Your task to perform on an android device: change timer sound Image 0: 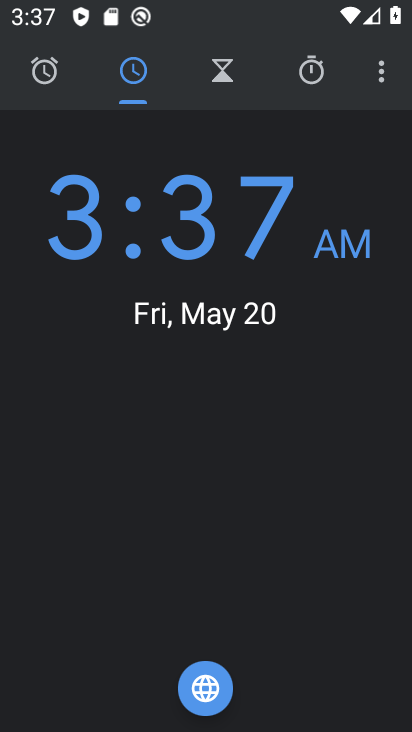
Step 0: click (386, 79)
Your task to perform on an android device: change timer sound Image 1: 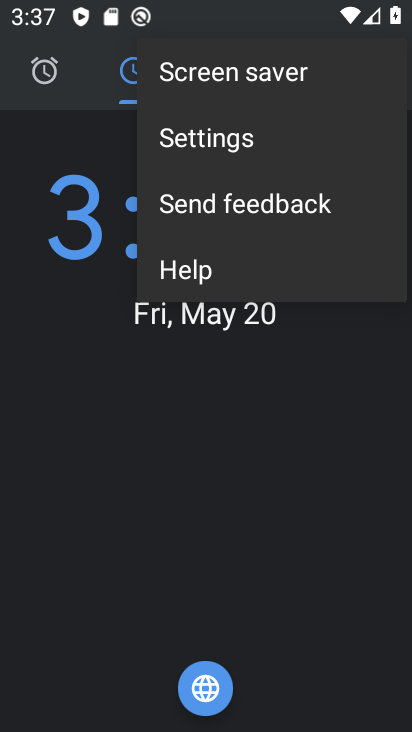
Step 1: click (220, 140)
Your task to perform on an android device: change timer sound Image 2: 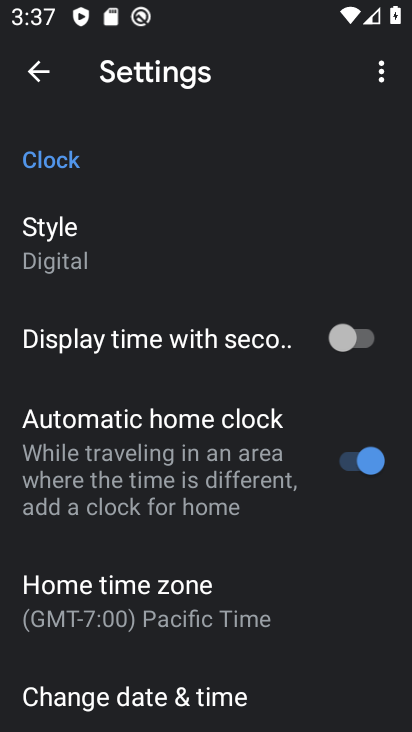
Step 2: drag from (262, 686) to (195, 256)
Your task to perform on an android device: change timer sound Image 3: 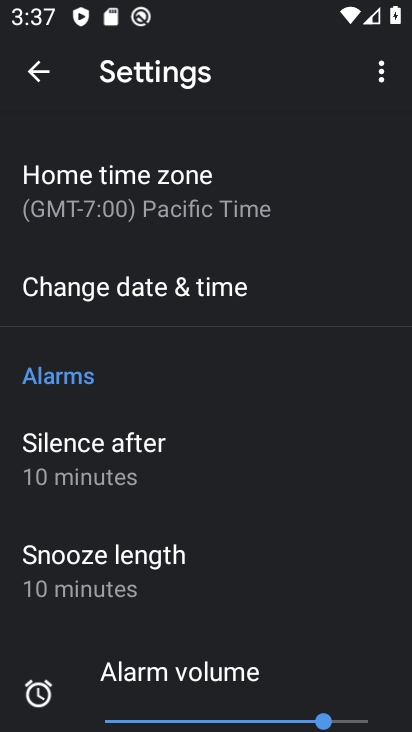
Step 3: drag from (245, 569) to (227, 190)
Your task to perform on an android device: change timer sound Image 4: 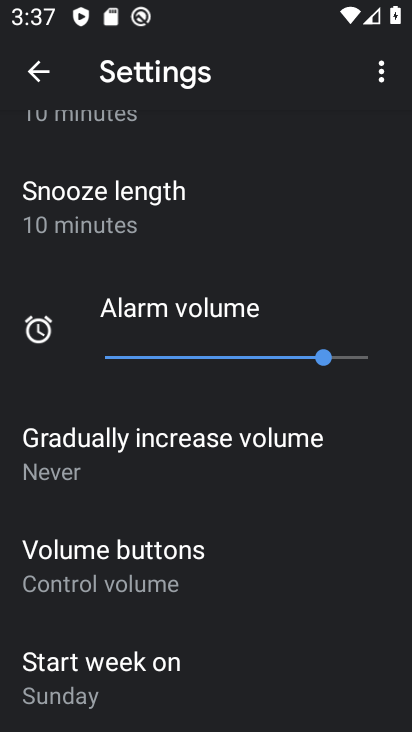
Step 4: drag from (198, 614) to (222, 77)
Your task to perform on an android device: change timer sound Image 5: 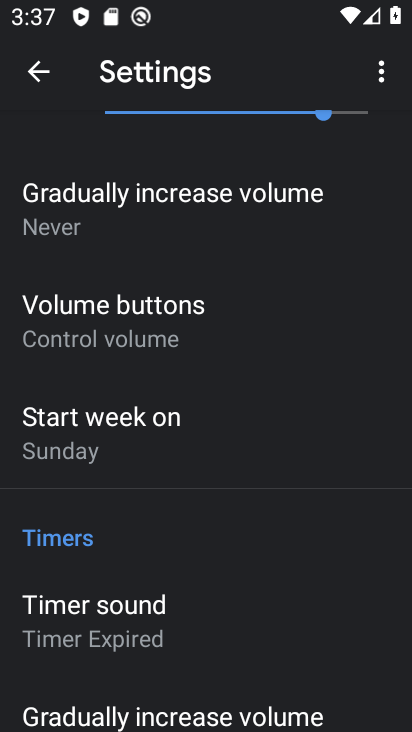
Step 5: click (190, 628)
Your task to perform on an android device: change timer sound Image 6: 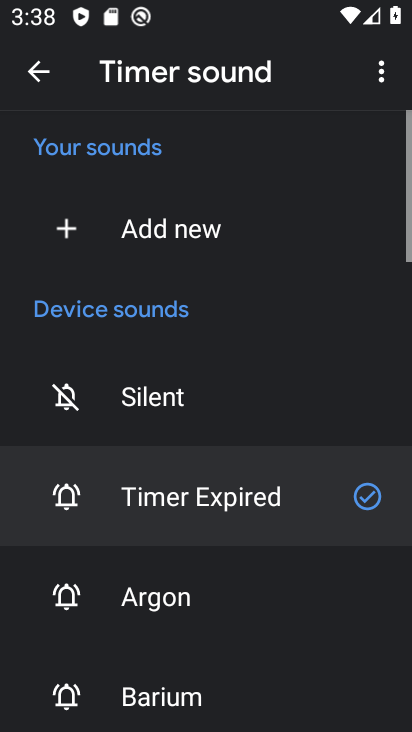
Step 6: click (198, 623)
Your task to perform on an android device: change timer sound Image 7: 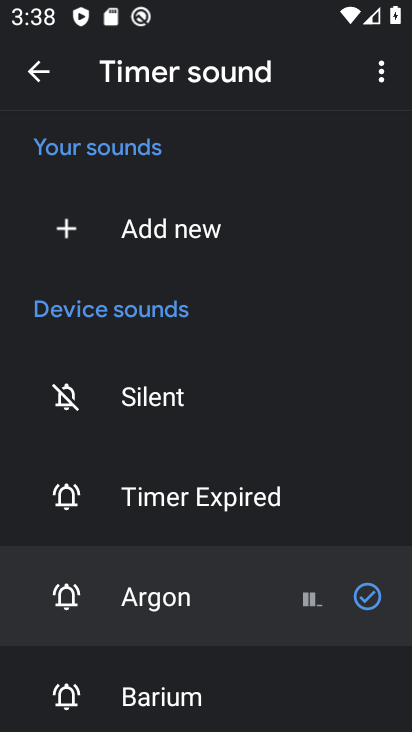
Step 7: task complete